Your task to perform on an android device: What is the recent news? Image 0: 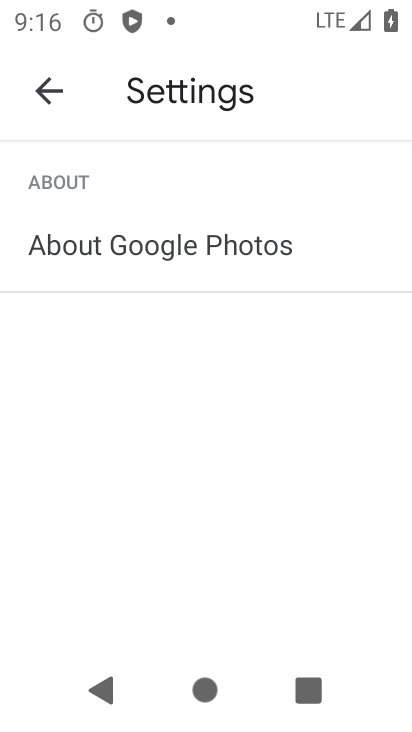
Step 0: press home button
Your task to perform on an android device: What is the recent news? Image 1: 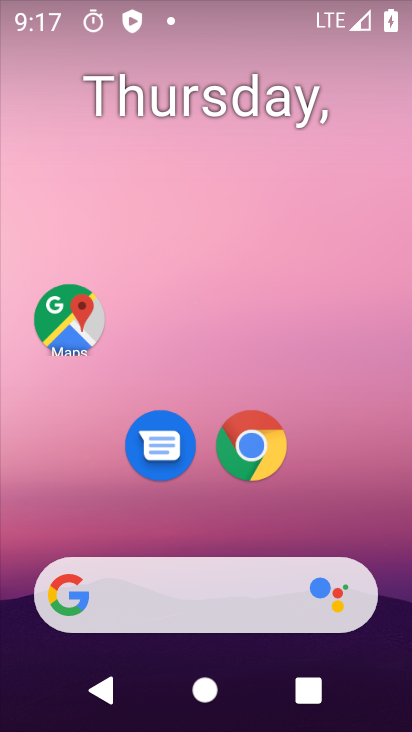
Step 1: task complete